Your task to perform on an android device: Go to sound settings Image 0: 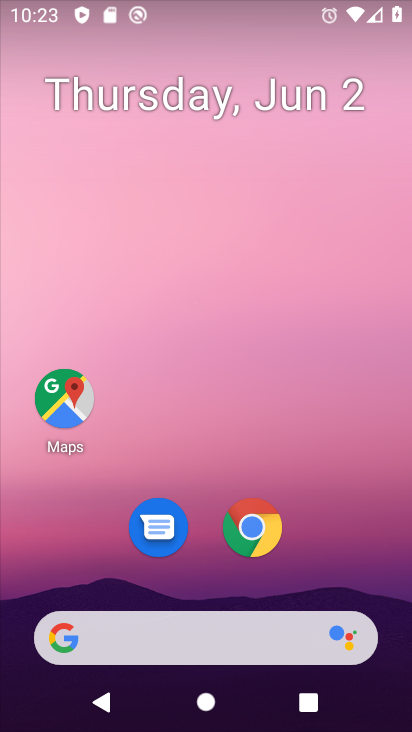
Step 0: drag from (220, 624) to (180, 83)
Your task to perform on an android device: Go to sound settings Image 1: 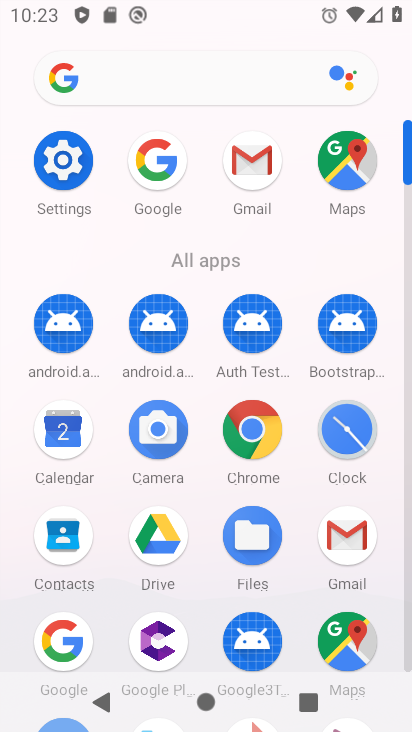
Step 1: click (80, 155)
Your task to perform on an android device: Go to sound settings Image 2: 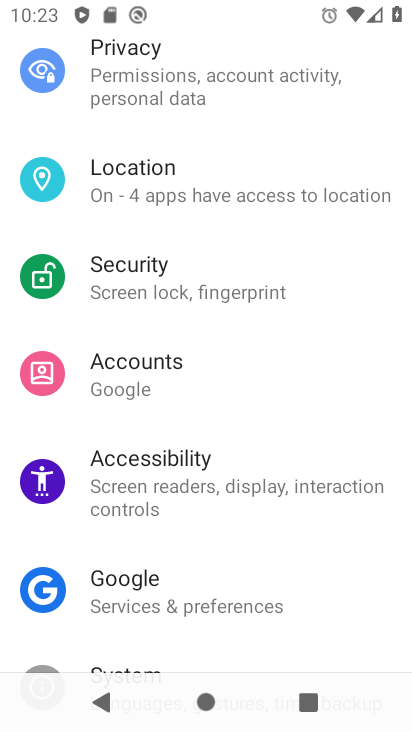
Step 2: drag from (153, 176) to (177, 428)
Your task to perform on an android device: Go to sound settings Image 3: 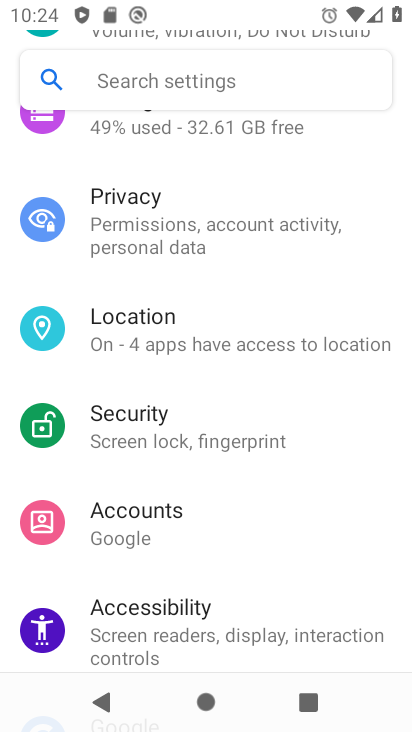
Step 3: drag from (181, 224) to (203, 512)
Your task to perform on an android device: Go to sound settings Image 4: 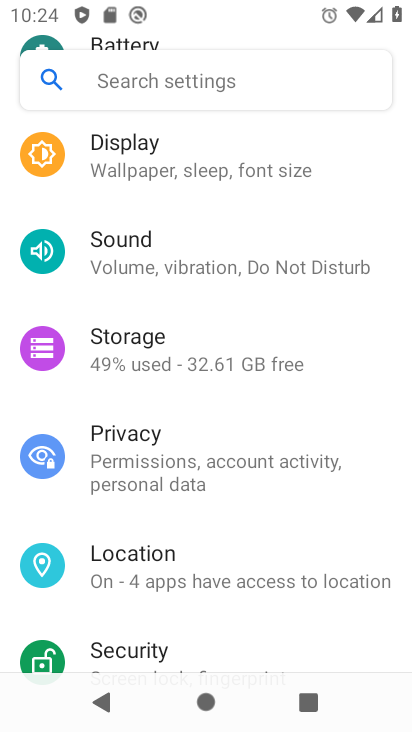
Step 4: click (124, 254)
Your task to perform on an android device: Go to sound settings Image 5: 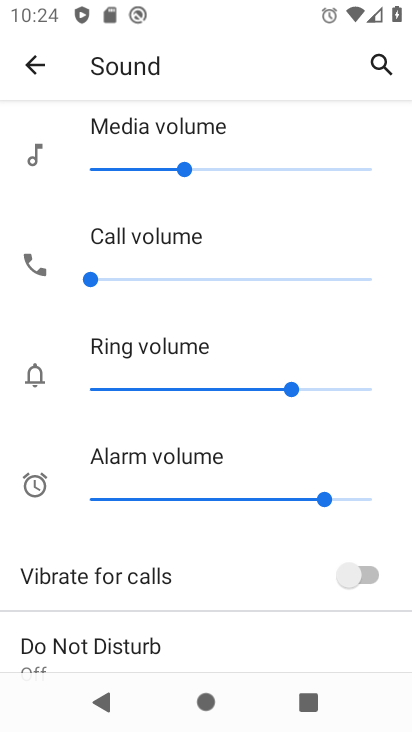
Step 5: task complete